Your task to perform on an android device: change alarm snooze length Image 0: 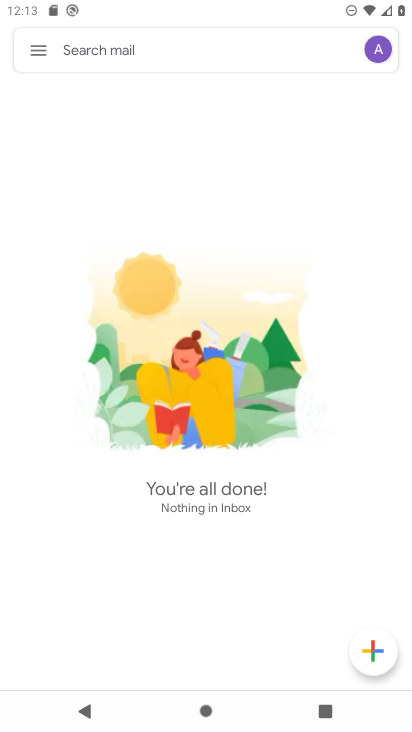
Step 0: press home button
Your task to perform on an android device: change alarm snooze length Image 1: 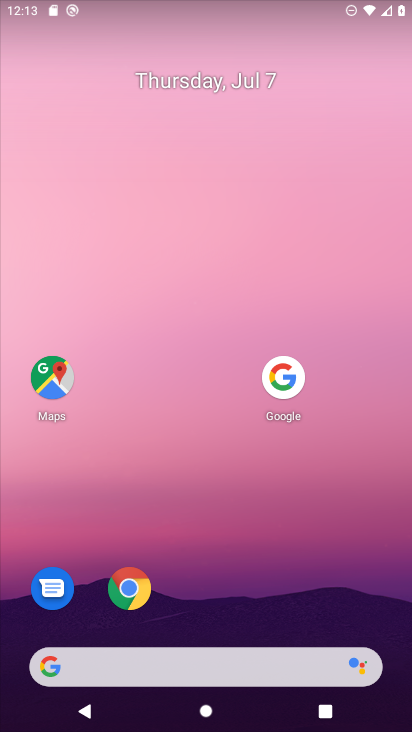
Step 1: drag from (180, 672) to (265, 23)
Your task to perform on an android device: change alarm snooze length Image 2: 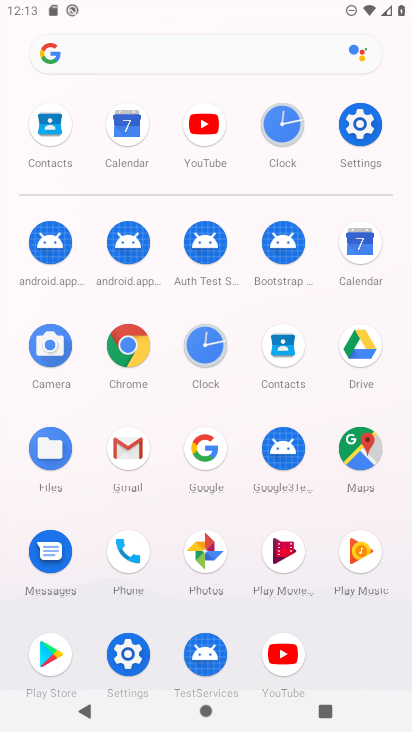
Step 2: click (290, 128)
Your task to perform on an android device: change alarm snooze length Image 3: 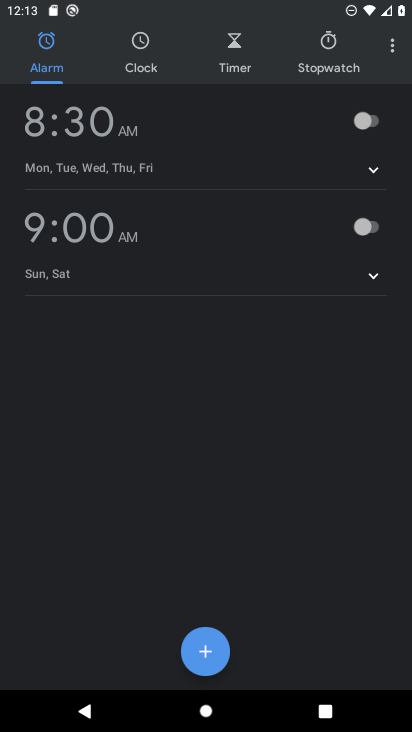
Step 3: click (391, 45)
Your task to perform on an android device: change alarm snooze length Image 4: 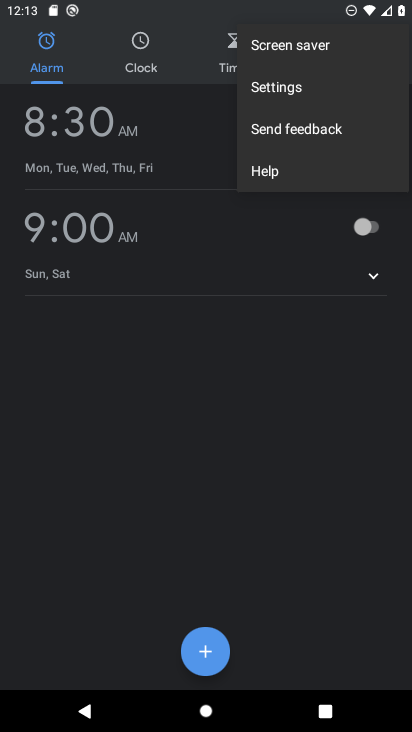
Step 4: click (290, 89)
Your task to perform on an android device: change alarm snooze length Image 5: 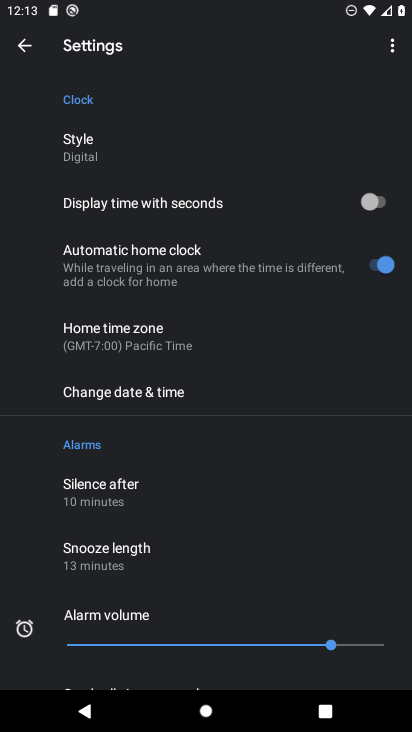
Step 5: click (91, 561)
Your task to perform on an android device: change alarm snooze length Image 6: 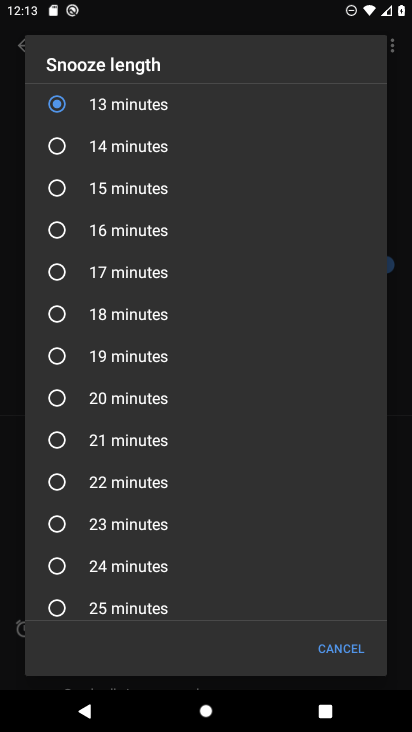
Step 6: click (54, 188)
Your task to perform on an android device: change alarm snooze length Image 7: 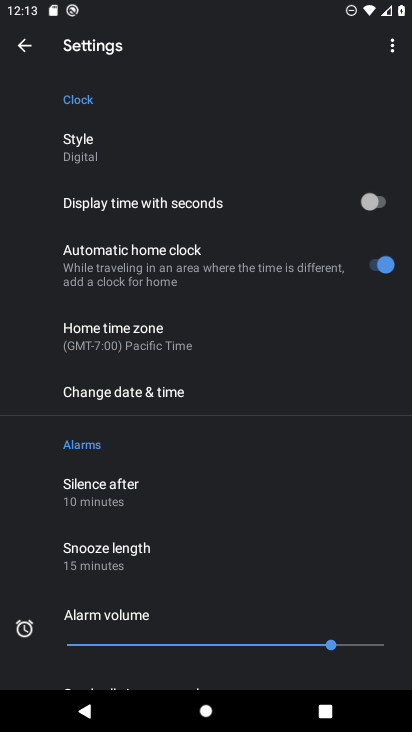
Step 7: task complete